Your task to perform on an android device: Open Google Image 0: 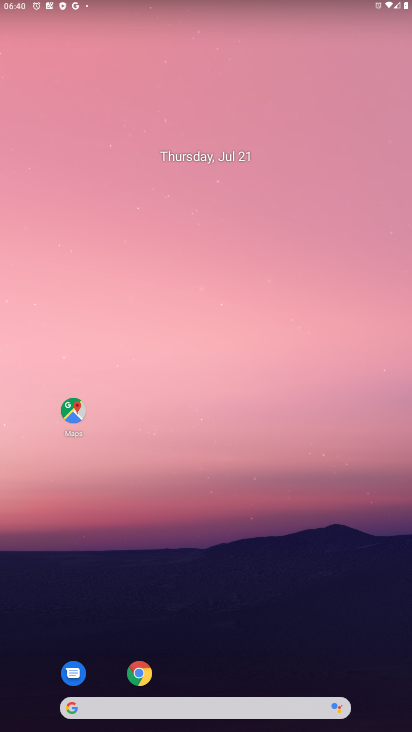
Step 0: click (171, 711)
Your task to perform on an android device: Open Google Image 1: 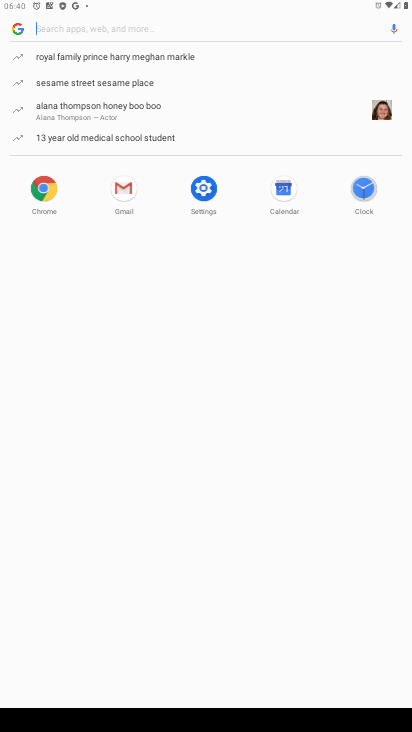
Step 1: task complete